Your task to perform on an android device: add a contact Image 0: 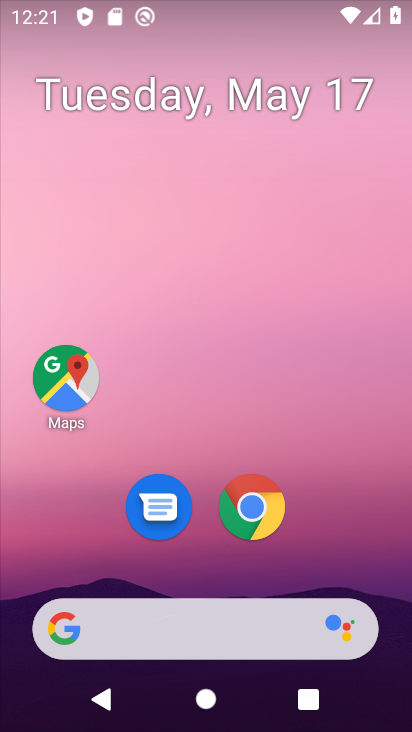
Step 0: drag from (217, 568) to (111, 16)
Your task to perform on an android device: add a contact Image 1: 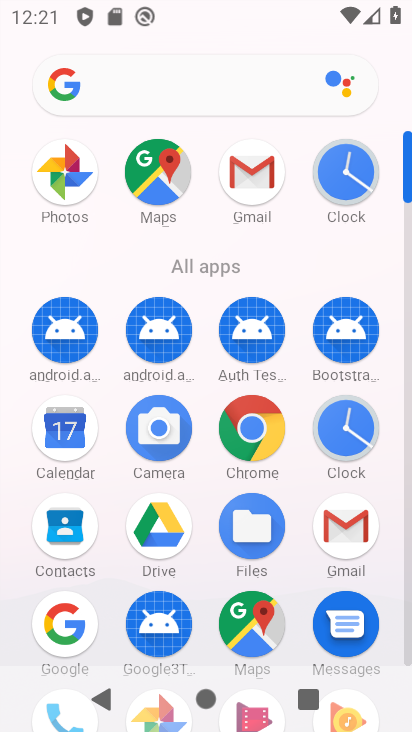
Step 1: click (59, 535)
Your task to perform on an android device: add a contact Image 2: 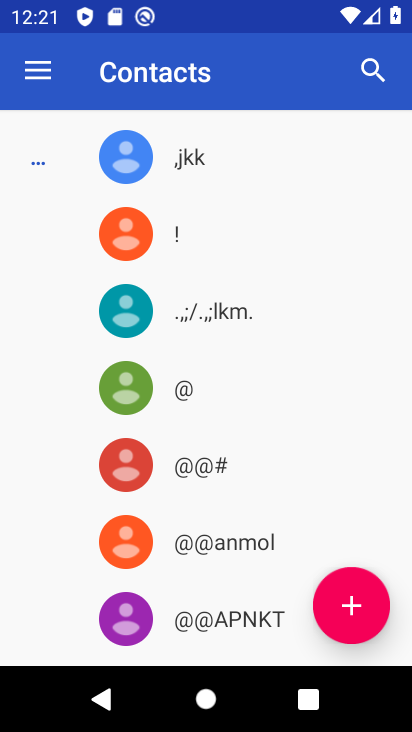
Step 2: click (344, 603)
Your task to perform on an android device: add a contact Image 3: 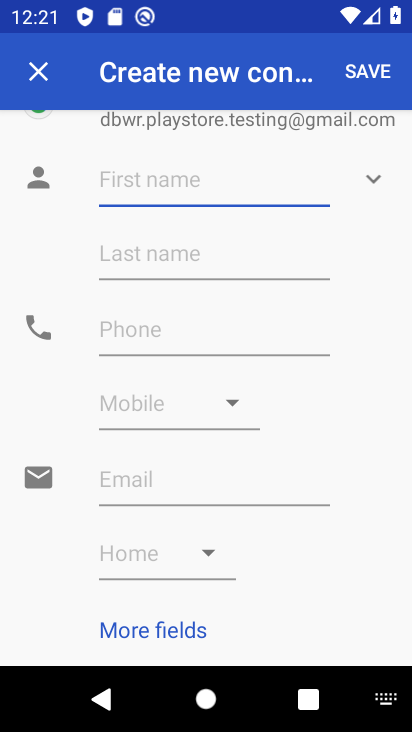
Step 3: type "qazxsweedcvfr"
Your task to perform on an android device: add a contact Image 4: 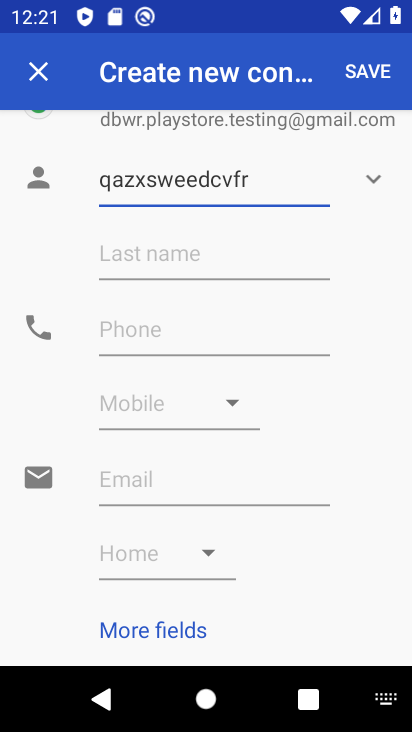
Step 4: click (110, 322)
Your task to perform on an android device: add a contact Image 5: 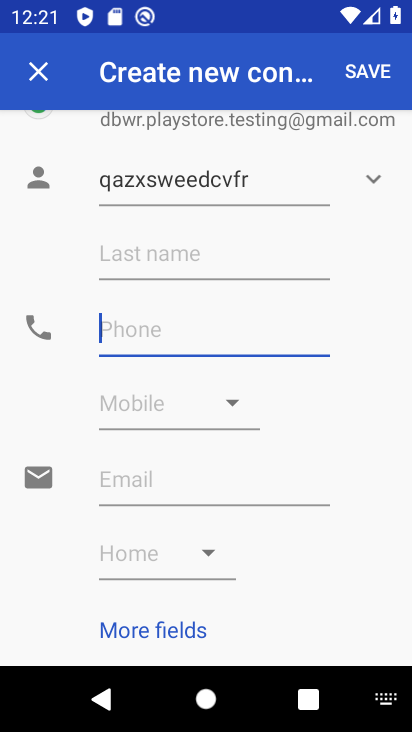
Step 5: type "23145678909"
Your task to perform on an android device: add a contact Image 6: 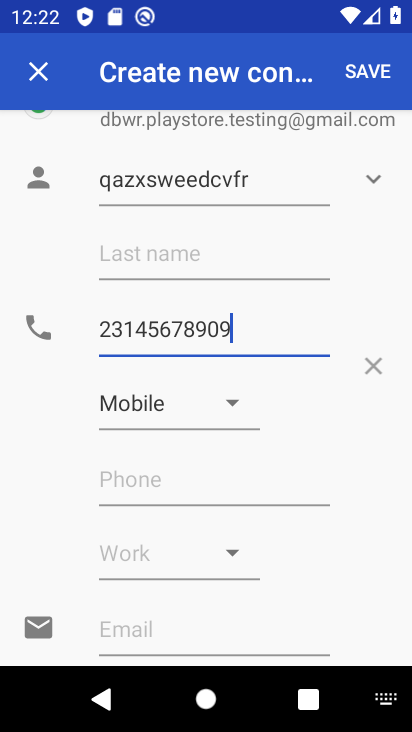
Step 6: click (367, 73)
Your task to perform on an android device: add a contact Image 7: 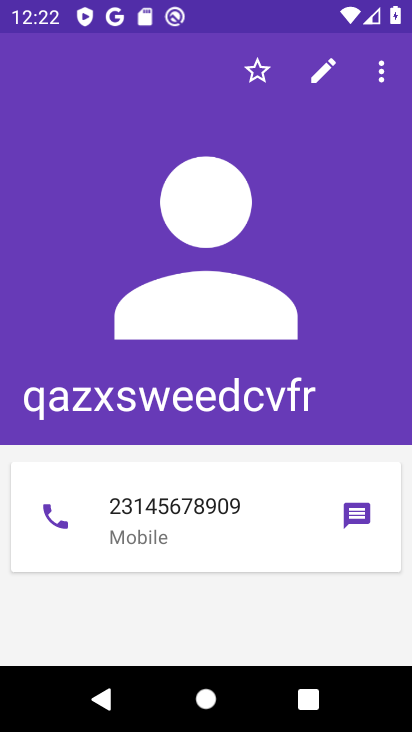
Step 7: task complete